Your task to perform on an android device: Open Yahoo.com Image 0: 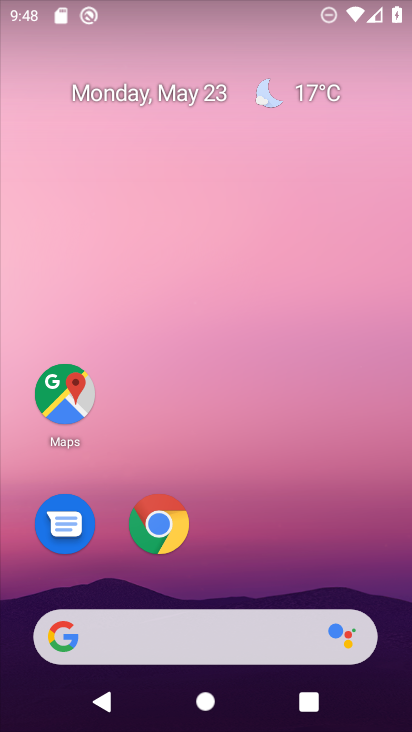
Step 0: click (167, 530)
Your task to perform on an android device: Open Yahoo.com Image 1: 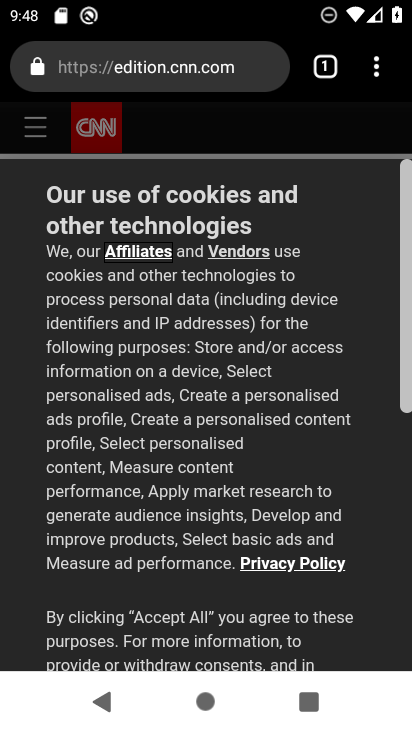
Step 1: click (332, 66)
Your task to perform on an android device: Open Yahoo.com Image 2: 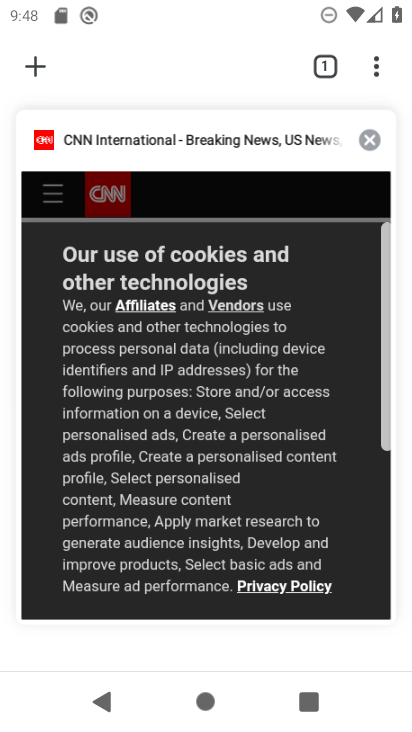
Step 2: click (40, 59)
Your task to perform on an android device: Open Yahoo.com Image 3: 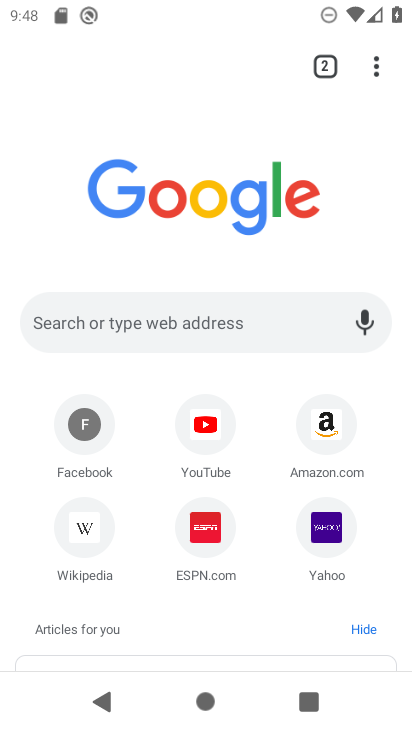
Step 3: click (328, 534)
Your task to perform on an android device: Open Yahoo.com Image 4: 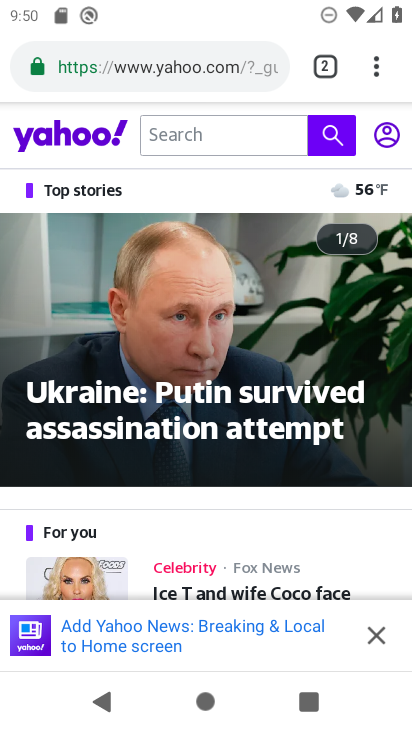
Step 4: task complete